Your task to perform on an android device: Go to privacy settings Image 0: 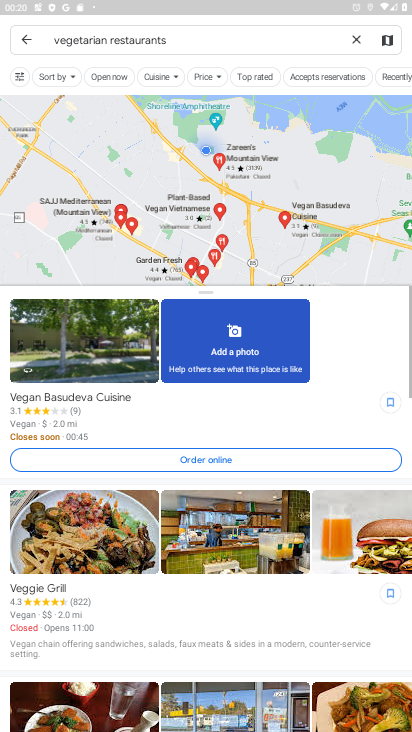
Step 0: press home button
Your task to perform on an android device: Go to privacy settings Image 1: 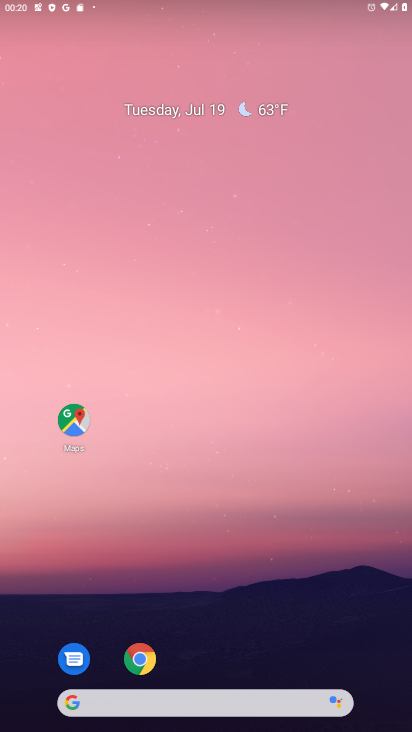
Step 1: drag from (263, 607) to (255, 283)
Your task to perform on an android device: Go to privacy settings Image 2: 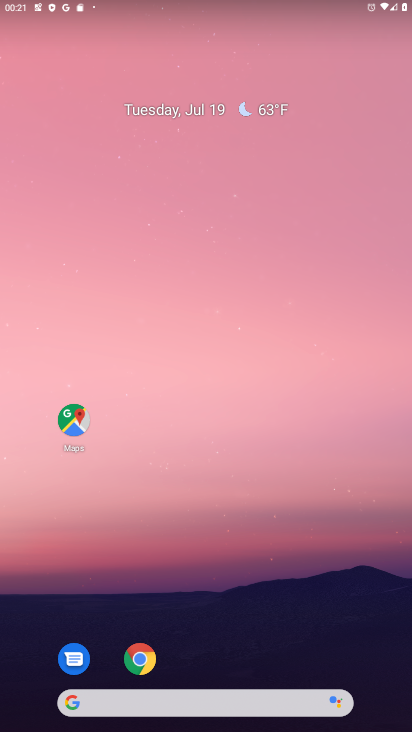
Step 2: drag from (247, 701) to (256, 368)
Your task to perform on an android device: Go to privacy settings Image 3: 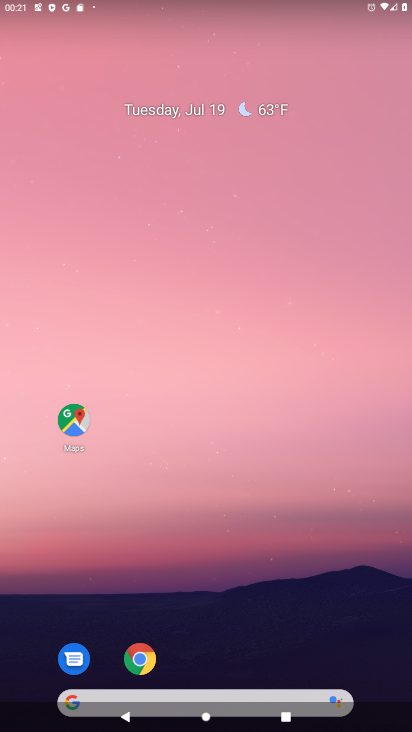
Step 3: drag from (281, 620) to (265, 85)
Your task to perform on an android device: Go to privacy settings Image 4: 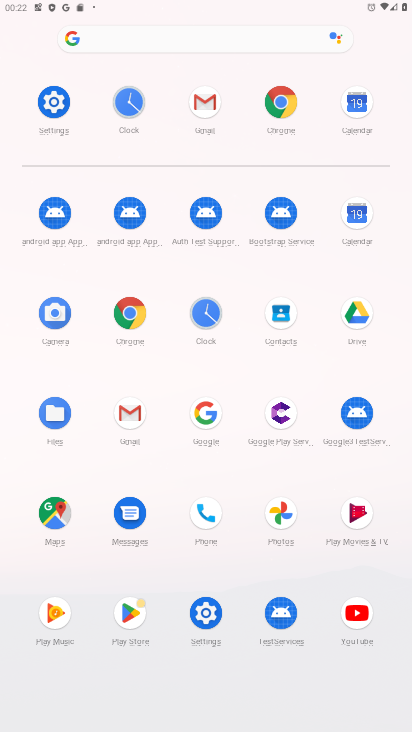
Step 4: click (199, 594)
Your task to perform on an android device: Go to privacy settings Image 5: 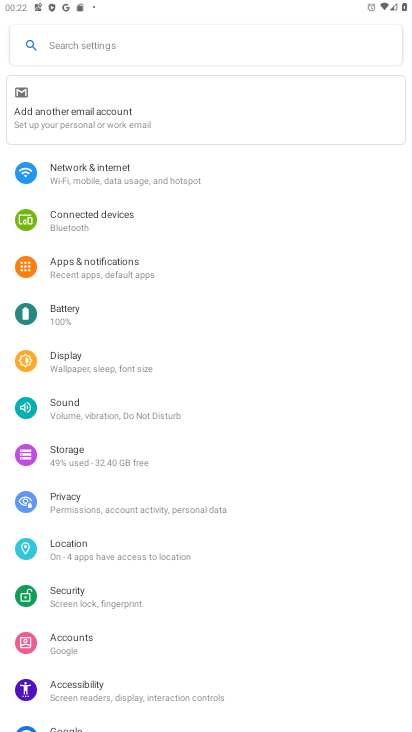
Step 5: click (83, 505)
Your task to perform on an android device: Go to privacy settings Image 6: 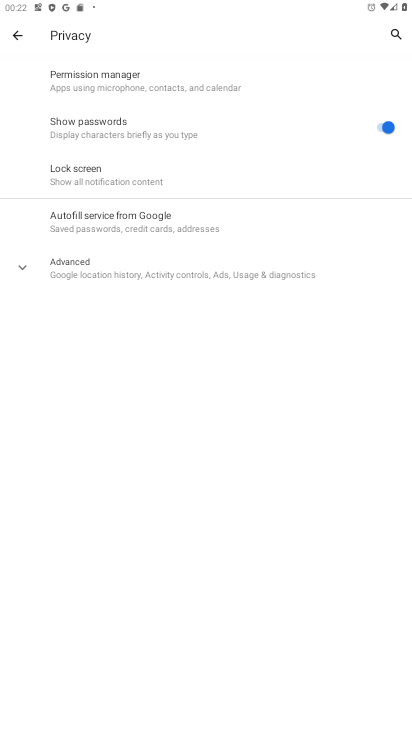
Step 6: task complete